Your task to perform on an android device: Open the calendar and show me this week's events? Image 0: 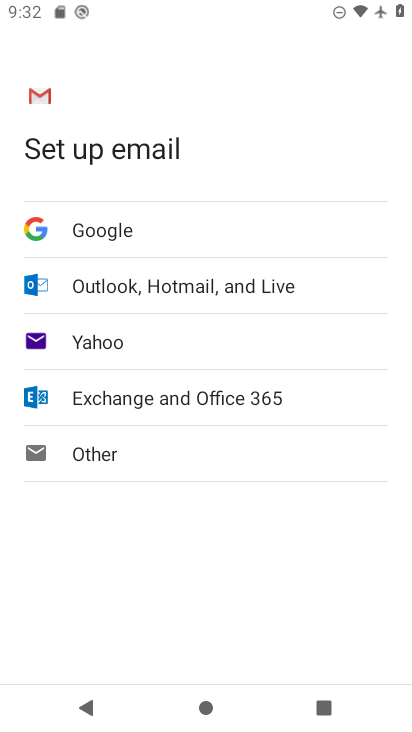
Step 0: press home button
Your task to perform on an android device: Open the calendar and show me this week's events? Image 1: 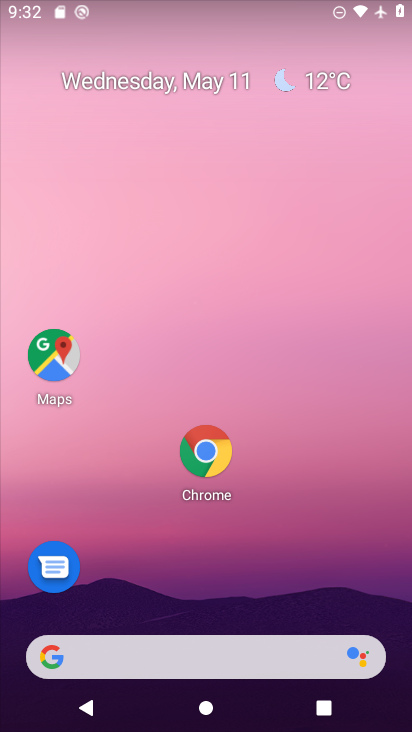
Step 1: drag from (164, 634) to (283, 227)
Your task to perform on an android device: Open the calendar and show me this week's events? Image 2: 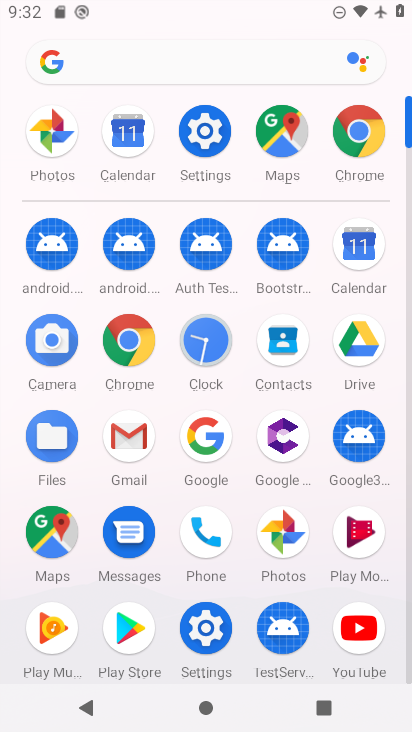
Step 2: click (121, 137)
Your task to perform on an android device: Open the calendar and show me this week's events? Image 3: 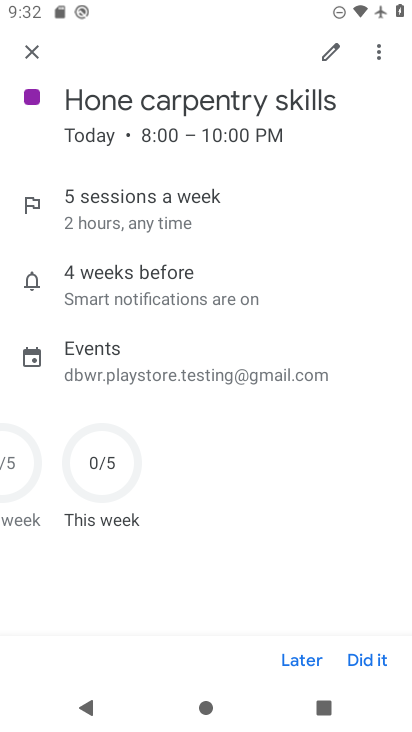
Step 3: click (34, 51)
Your task to perform on an android device: Open the calendar and show me this week's events? Image 4: 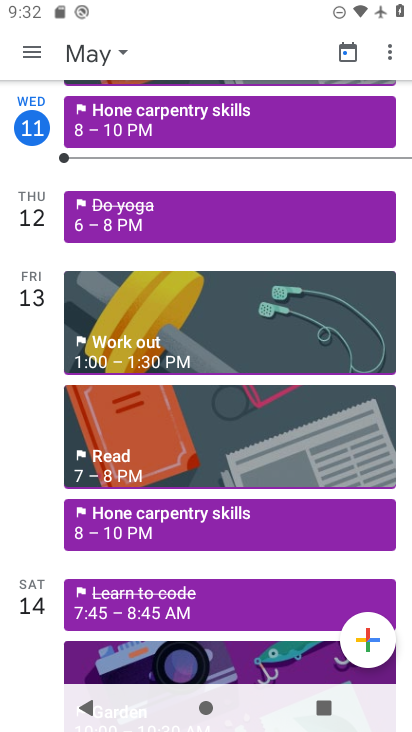
Step 4: click (94, 58)
Your task to perform on an android device: Open the calendar and show me this week's events? Image 5: 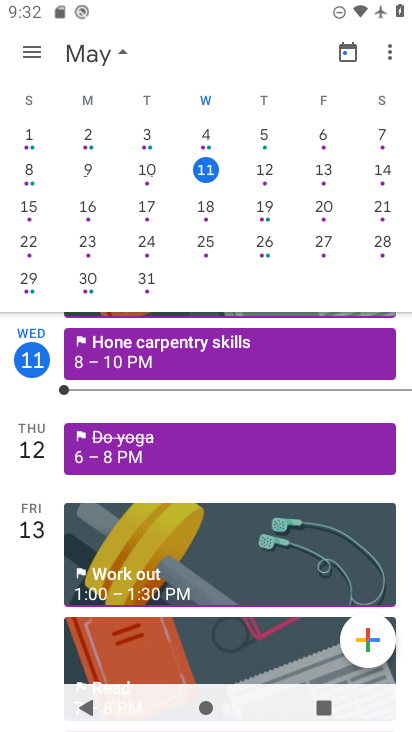
Step 5: click (30, 50)
Your task to perform on an android device: Open the calendar and show me this week's events? Image 6: 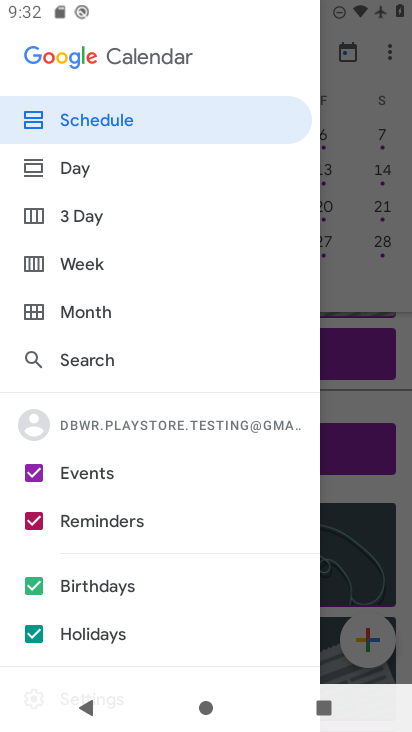
Step 6: click (90, 259)
Your task to perform on an android device: Open the calendar and show me this week's events? Image 7: 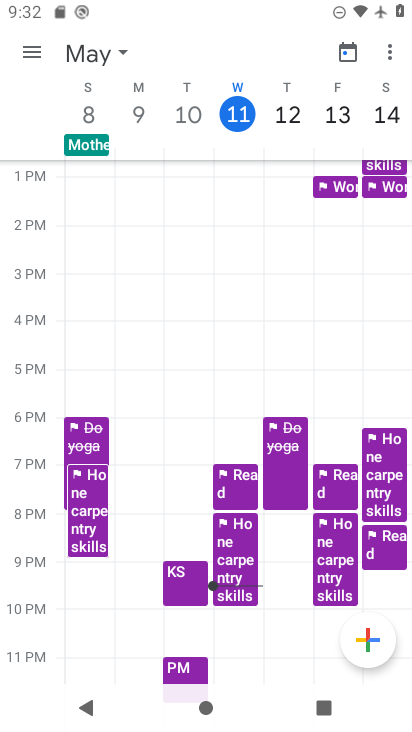
Step 7: click (27, 52)
Your task to perform on an android device: Open the calendar and show me this week's events? Image 8: 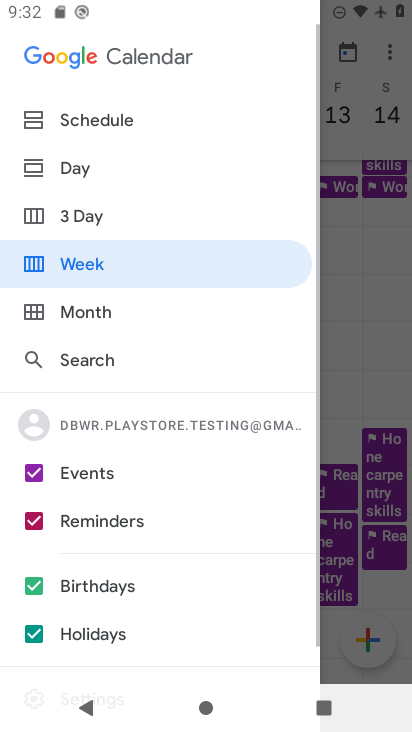
Step 8: click (93, 119)
Your task to perform on an android device: Open the calendar and show me this week's events? Image 9: 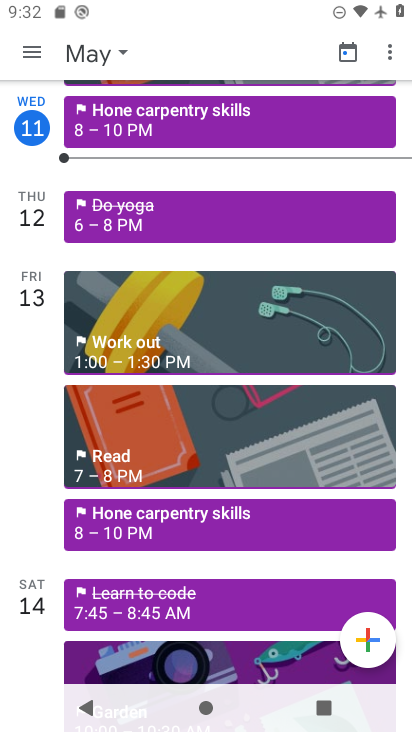
Step 9: task complete